Your task to perform on an android device: turn notification dots off Image 0: 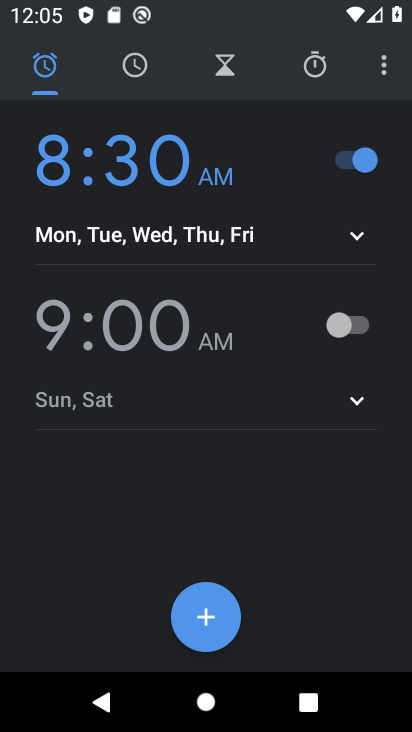
Step 0: press home button
Your task to perform on an android device: turn notification dots off Image 1: 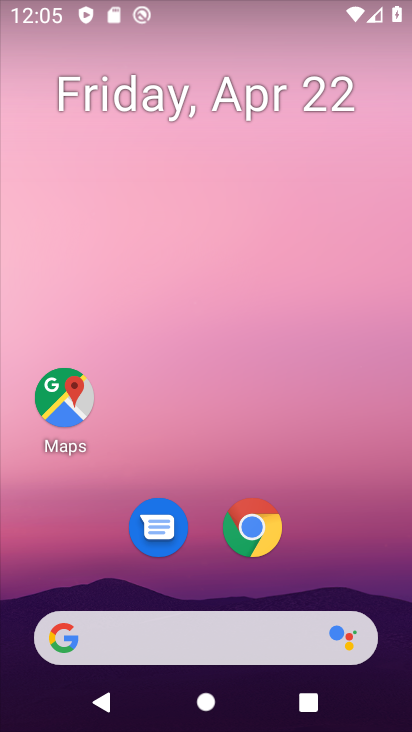
Step 1: drag from (184, 300) to (188, 106)
Your task to perform on an android device: turn notification dots off Image 2: 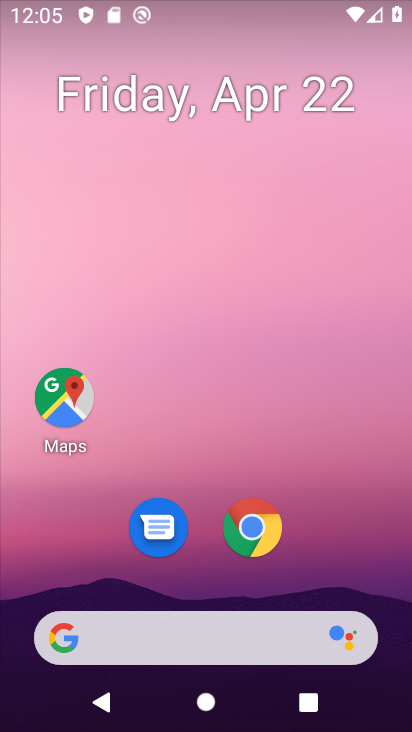
Step 2: drag from (204, 597) to (217, 148)
Your task to perform on an android device: turn notification dots off Image 3: 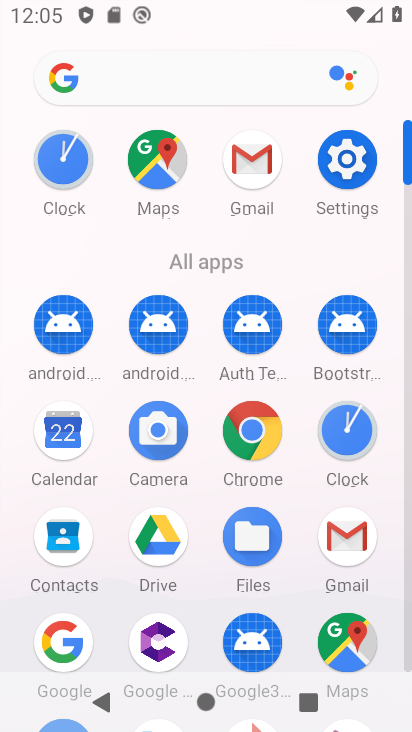
Step 3: click (329, 174)
Your task to perform on an android device: turn notification dots off Image 4: 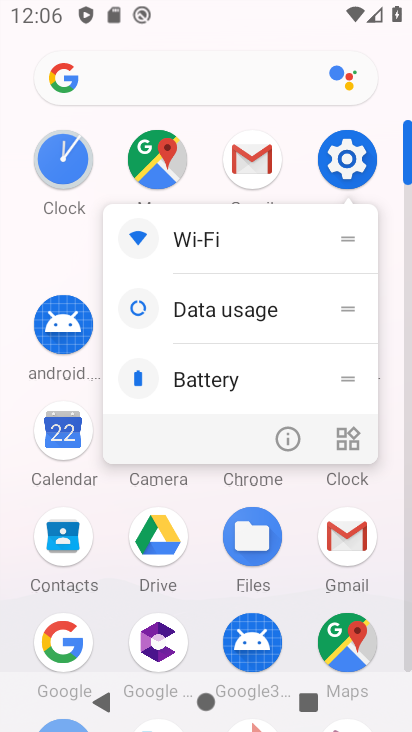
Step 4: click (327, 185)
Your task to perform on an android device: turn notification dots off Image 5: 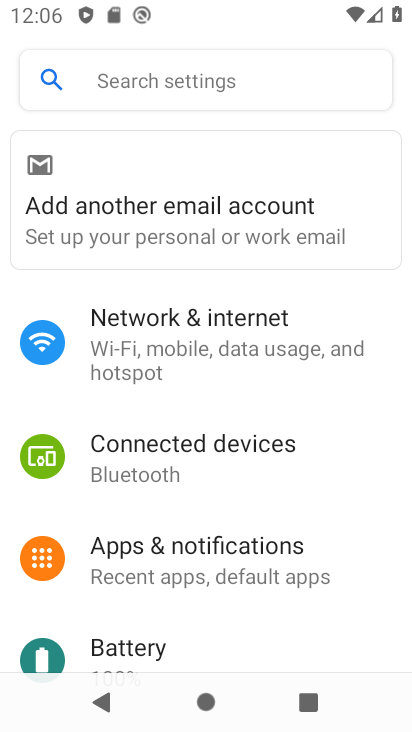
Step 5: click (252, 558)
Your task to perform on an android device: turn notification dots off Image 6: 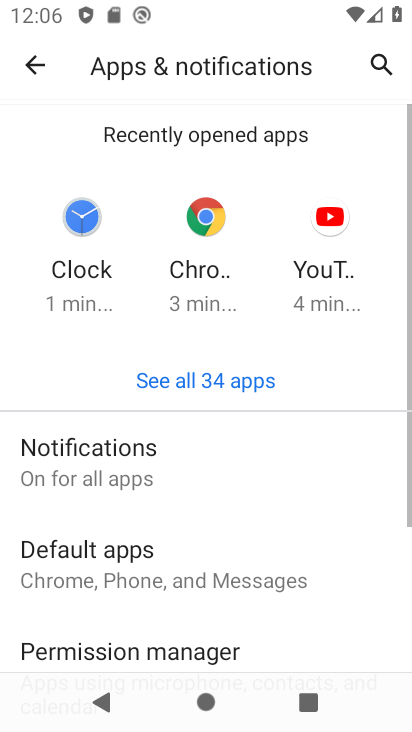
Step 6: click (166, 446)
Your task to perform on an android device: turn notification dots off Image 7: 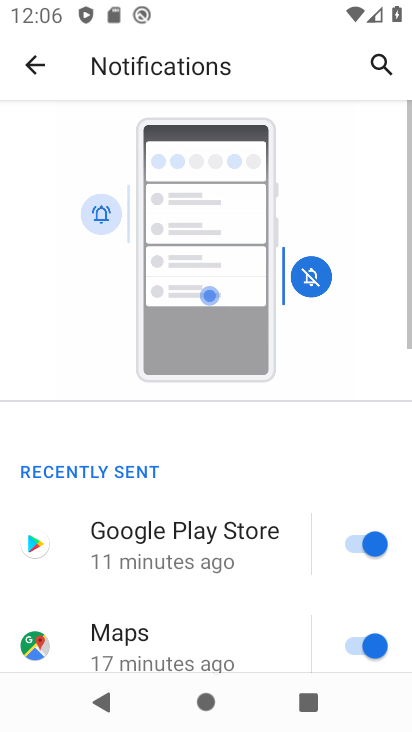
Step 7: drag from (218, 521) to (218, 150)
Your task to perform on an android device: turn notification dots off Image 8: 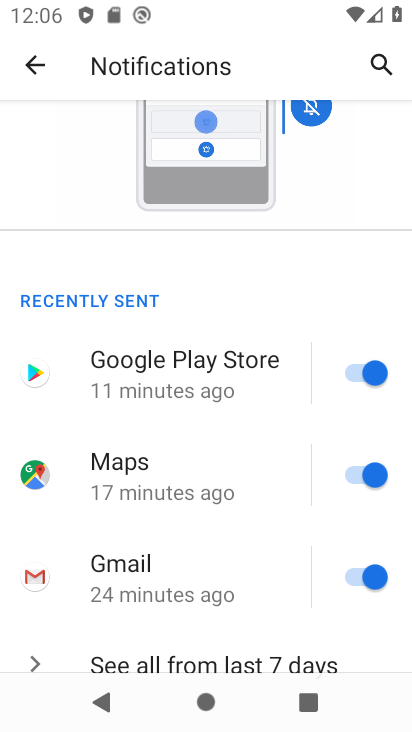
Step 8: drag from (214, 585) to (215, 167)
Your task to perform on an android device: turn notification dots off Image 9: 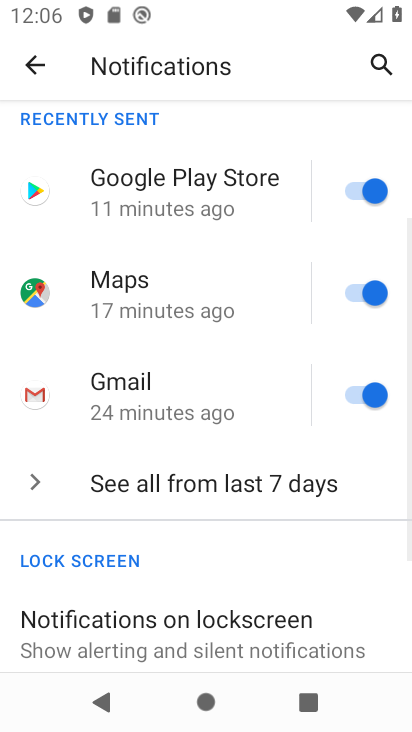
Step 9: drag from (222, 630) to (238, 308)
Your task to perform on an android device: turn notification dots off Image 10: 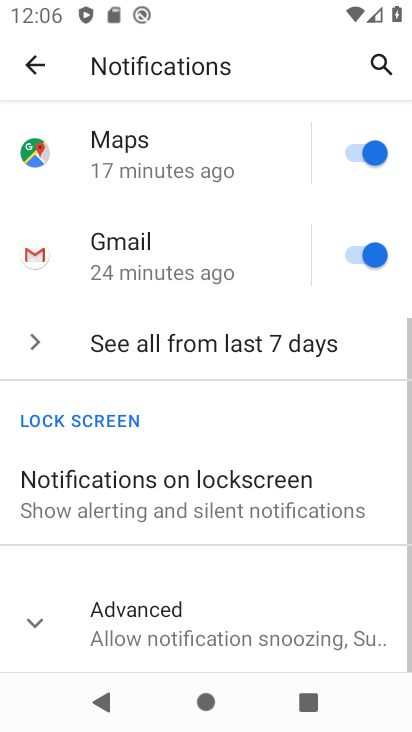
Step 10: click (229, 632)
Your task to perform on an android device: turn notification dots off Image 11: 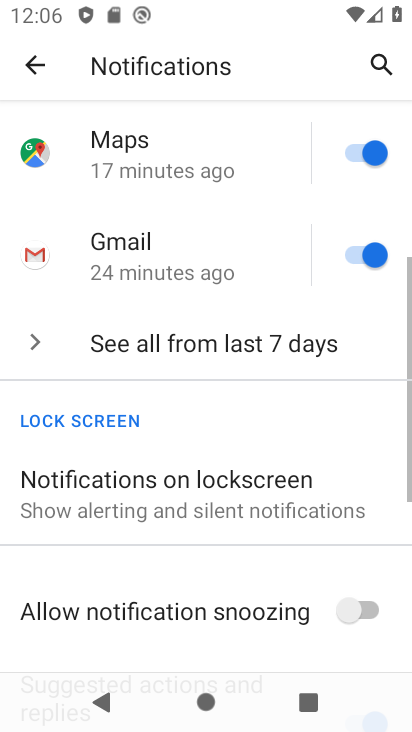
Step 11: drag from (227, 631) to (258, 316)
Your task to perform on an android device: turn notification dots off Image 12: 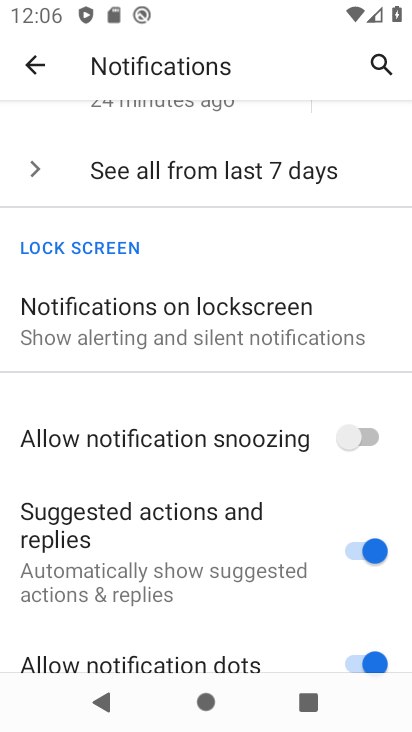
Step 12: drag from (269, 604) to (268, 393)
Your task to perform on an android device: turn notification dots off Image 13: 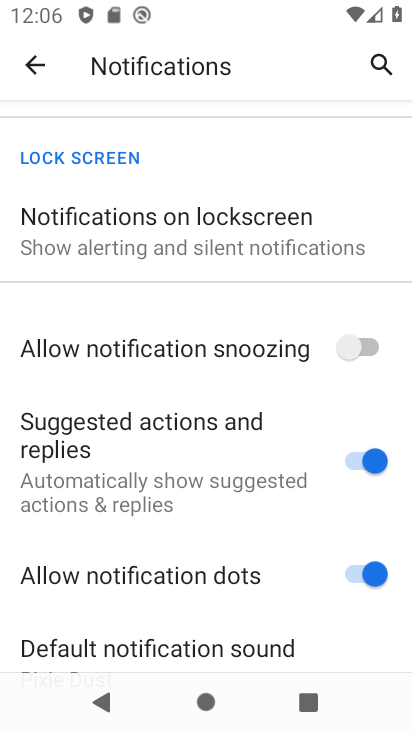
Step 13: click (351, 578)
Your task to perform on an android device: turn notification dots off Image 14: 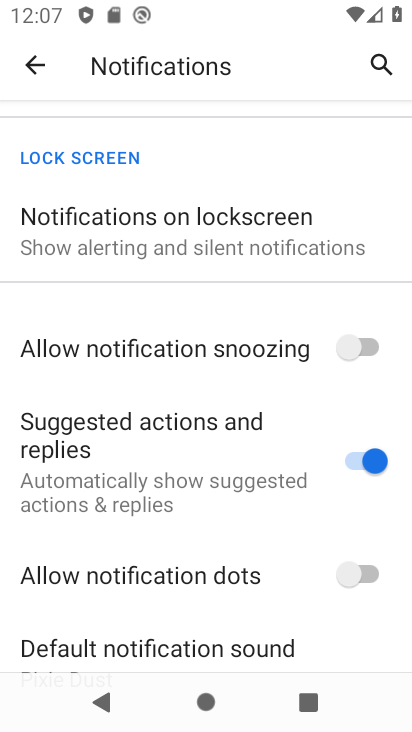
Step 14: task complete